Your task to perform on an android device: turn off priority inbox in the gmail app Image 0: 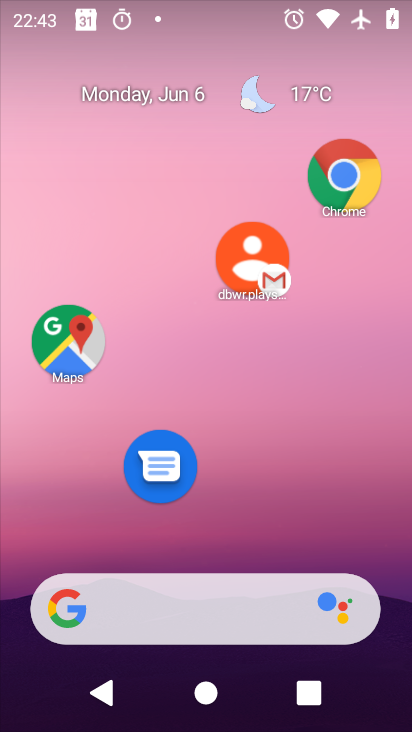
Step 0: drag from (219, 466) to (164, 20)
Your task to perform on an android device: turn off priority inbox in the gmail app Image 1: 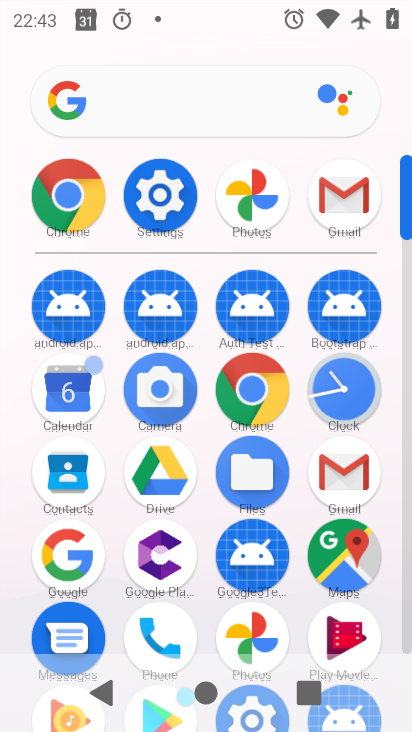
Step 1: click (337, 463)
Your task to perform on an android device: turn off priority inbox in the gmail app Image 2: 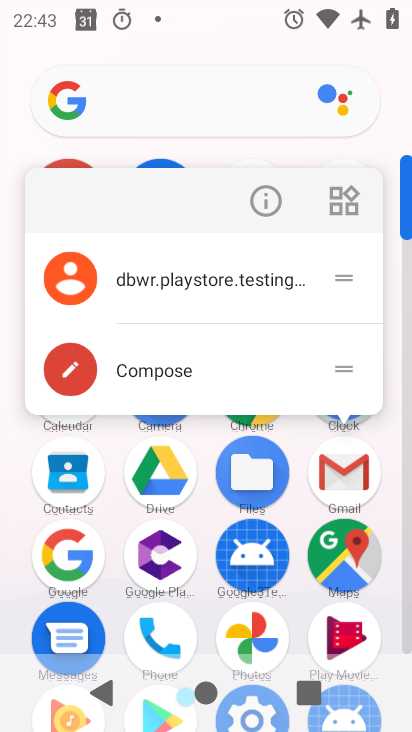
Step 2: click (256, 204)
Your task to perform on an android device: turn off priority inbox in the gmail app Image 3: 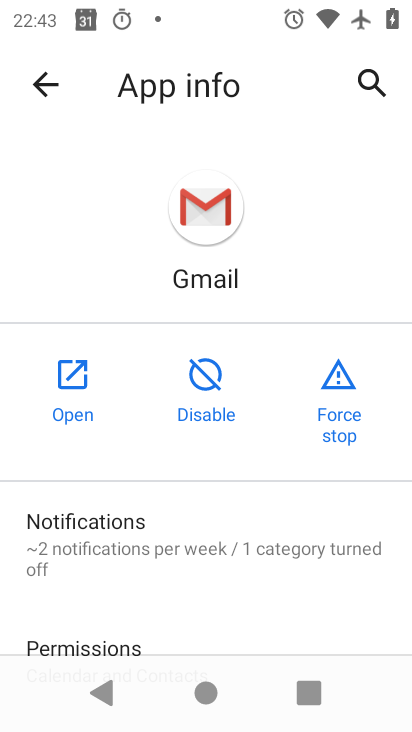
Step 3: click (69, 384)
Your task to perform on an android device: turn off priority inbox in the gmail app Image 4: 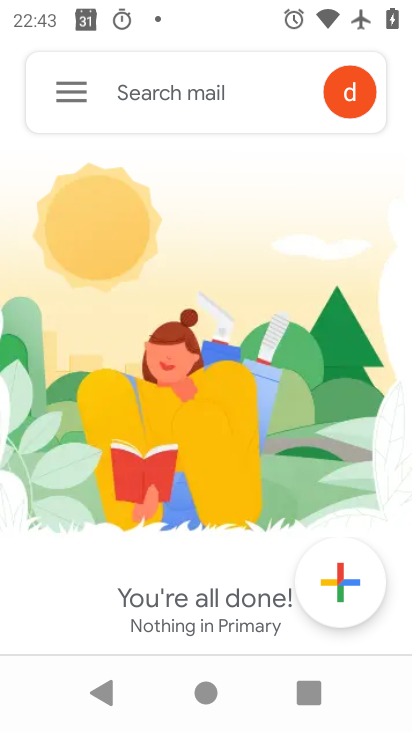
Step 4: click (60, 110)
Your task to perform on an android device: turn off priority inbox in the gmail app Image 5: 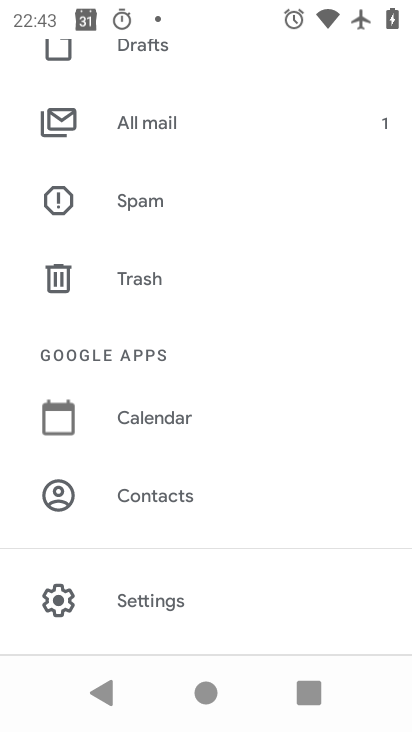
Step 5: drag from (170, 571) to (213, 0)
Your task to perform on an android device: turn off priority inbox in the gmail app Image 6: 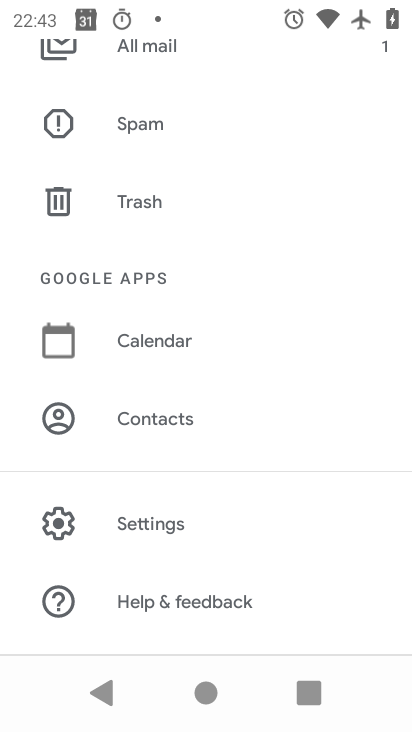
Step 6: click (165, 534)
Your task to perform on an android device: turn off priority inbox in the gmail app Image 7: 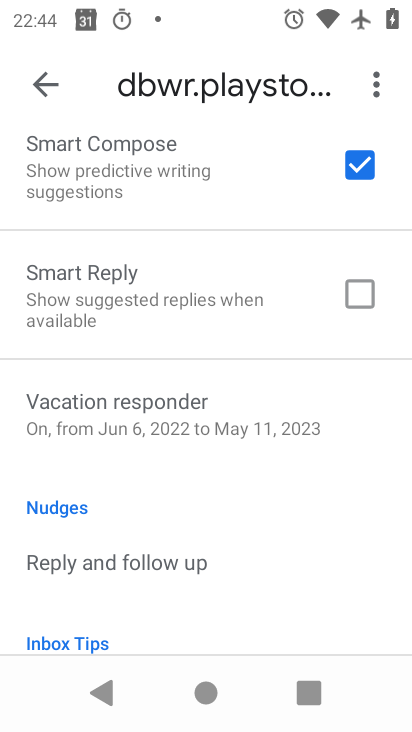
Step 7: drag from (220, 259) to (317, 722)
Your task to perform on an android device: turn off priority inbox in the gmail app Image 8: 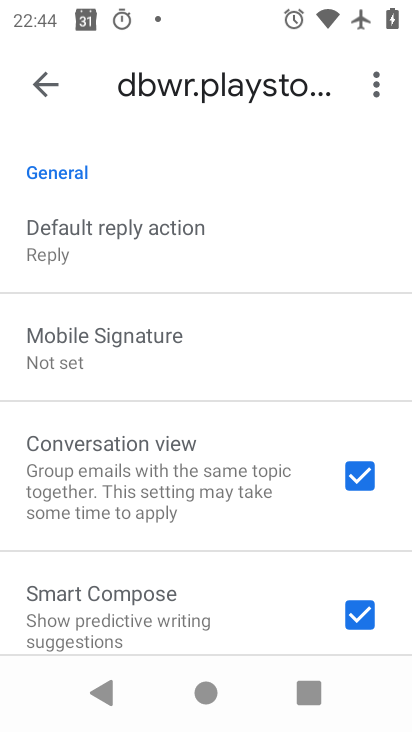
Step 8: drag from (96, 287) to (300, 730)
Your task to perform on an android device: turn off priority inbox in the gmail app Image 9: 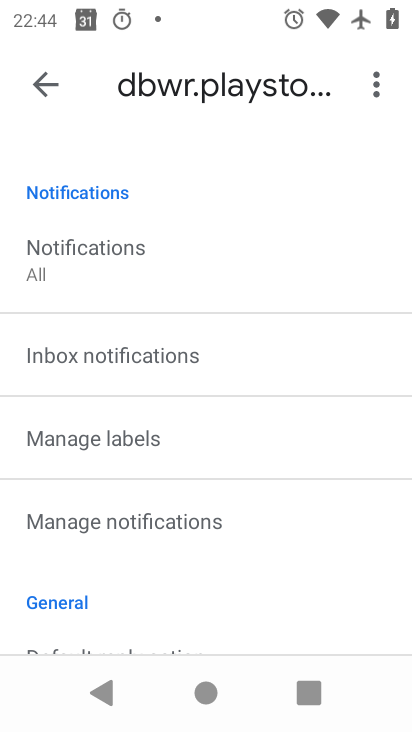
Step 9: drag from (121, 280) to (294, 679)
Your task to perform on an android device: turn off priority inbox in the gmail app Image 10: 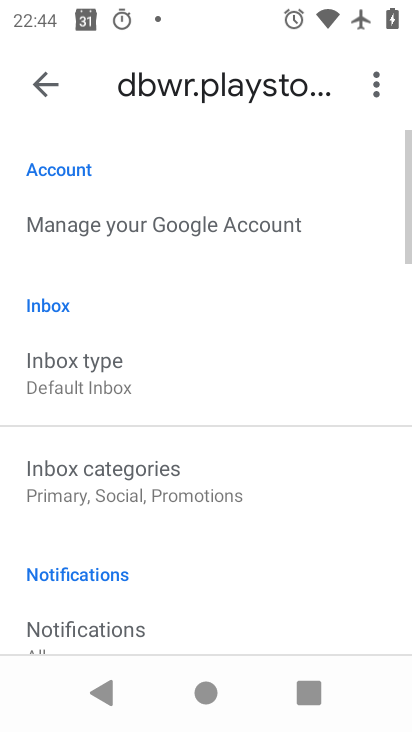
Step 10: click (114, 387)
Your task to perform on an android device: turn off priority inbox in the gmail app Image 11: 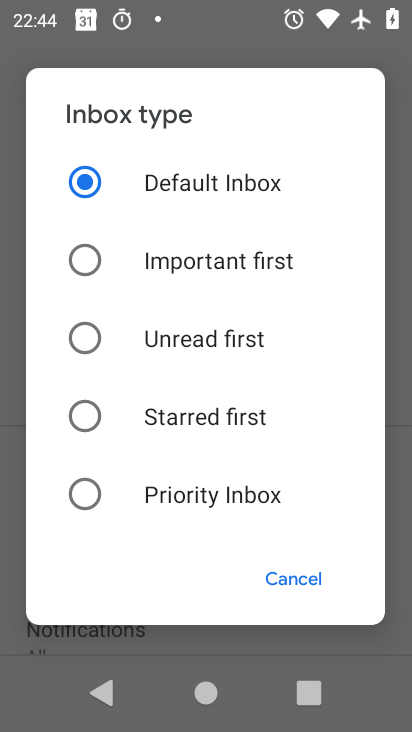
Step 11: task complete